Your task to perform on an android device: toggle wifi Image 0: 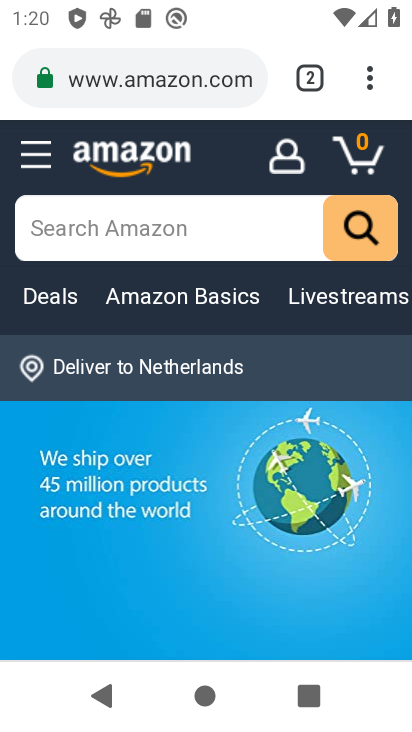
Step 0: press home button
Your task to perform on an android device: toggle wifi Image 1: 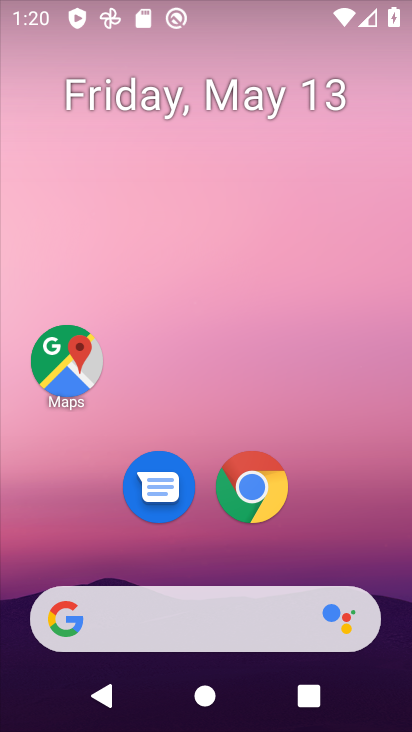
Step 1: drag from (314, 537) to (299, 141)
Your task to perform on an android device: toggle wifi Image 2: 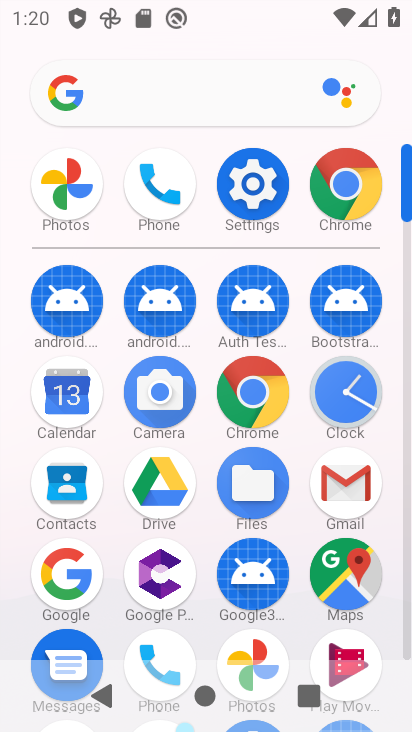
Step 2: click (246, 187)
Your task to perform on an android device: toggle wifi Image 3: 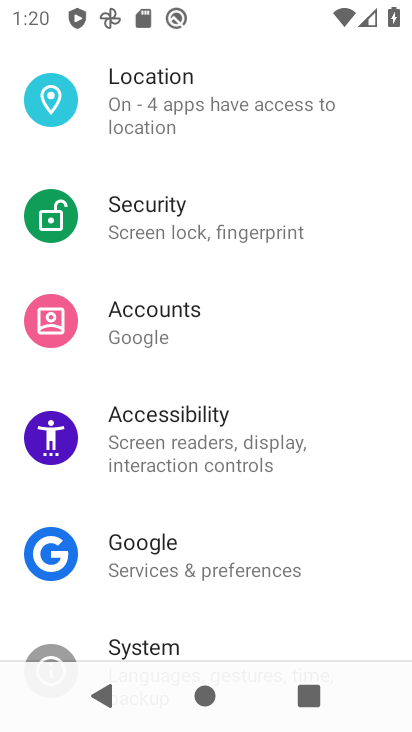
Step 3: drag from (275, 160) to (301, 527)
Your task to perform on an android device: toggle wifi Image 4: 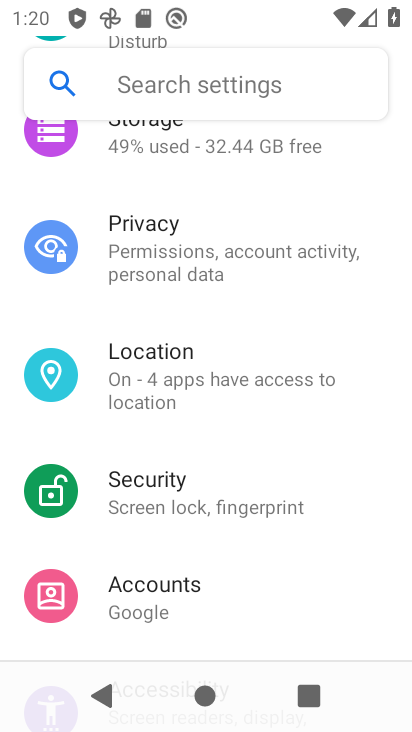
Step 4: drag from (272, 245) to (313, 574)
Your task to perform on an android device: toggle wifi Image 5: 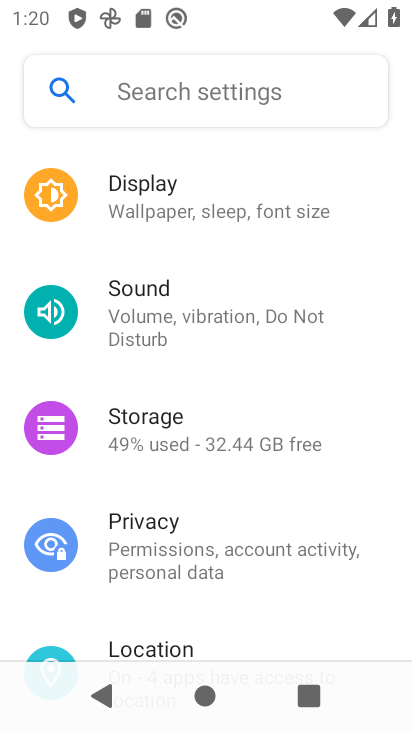
Step 5: drag from (280, 275) to (307, 537)
Your task to perform on an android device: toggle wifi Image 6: 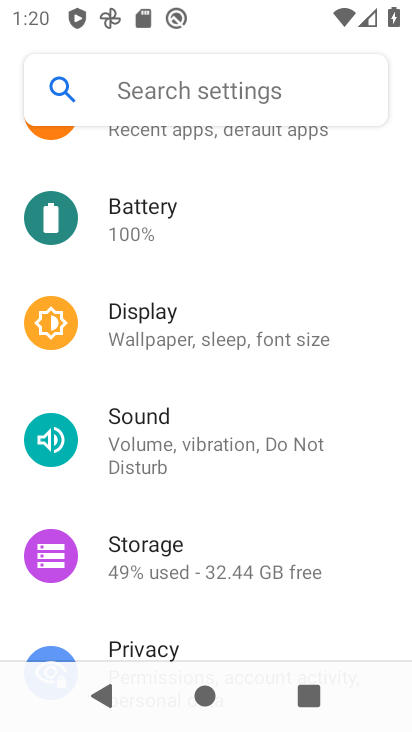
Step 6: drag from (282, 250) to (320, 644)
Your task to perform on an android device: toggle wifi Image 7: 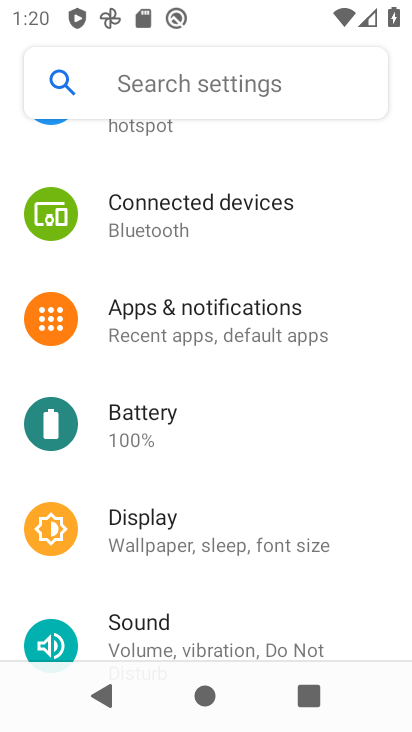
Step 7: drag from (201, 246) to (231, 512)
Your task to perform on an android device: toggle wifi Image 8: 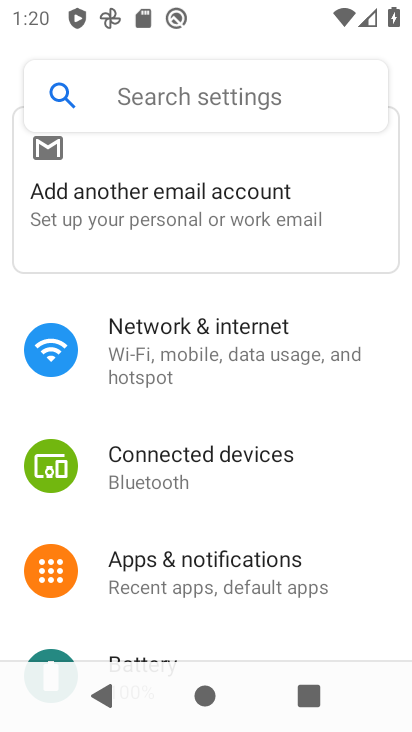
Step 8: click (207, 325)
Your task to perform on an android device: toggle wifi Image 9: 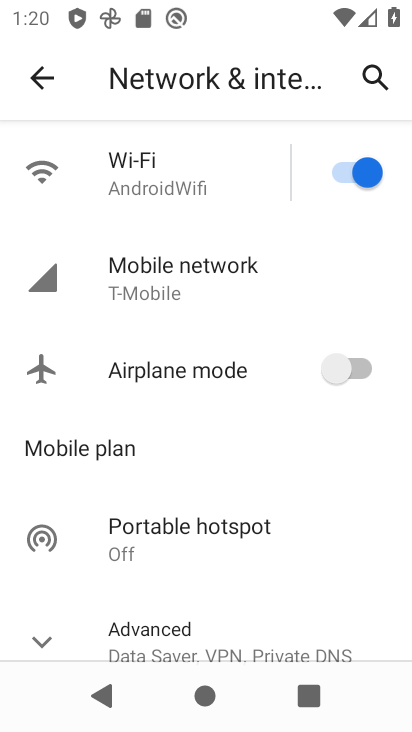
Step 9: click (361, 166)
Your task to perform on an android device: toggle wifi Image 10: 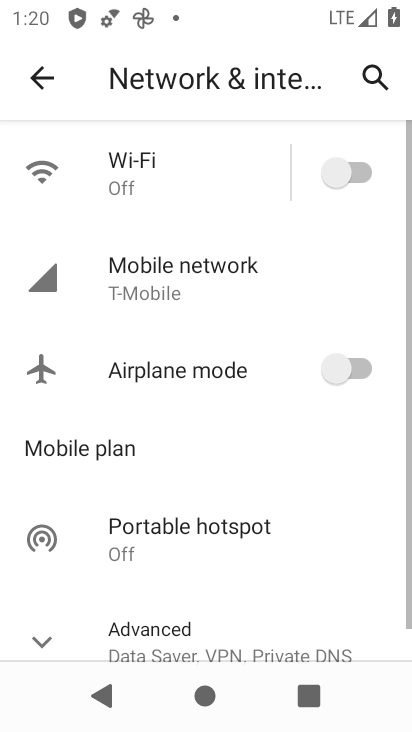
Step 10: task complete